Your task to perform on an android device: What is the recent news? Image 0: 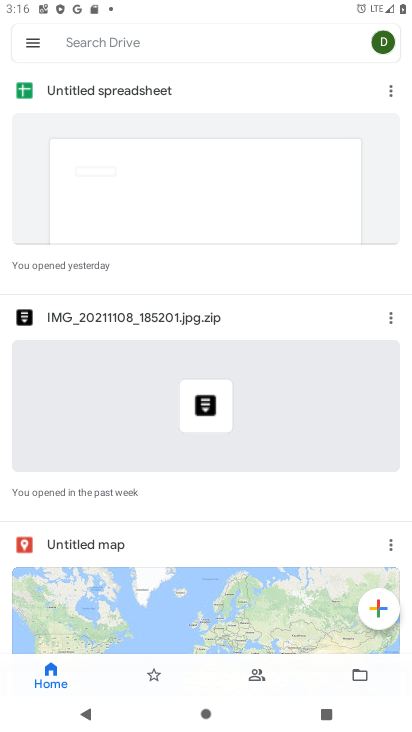
Step 0: press home button
Your task to perform on an android device: What is the recent news? Image 1: 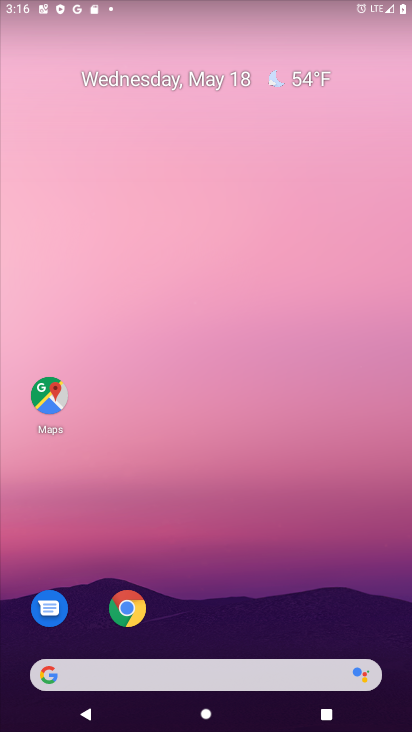
Step 1: click (102, 670)
Your task to perform on an android device: What is the recent news? Image 2: 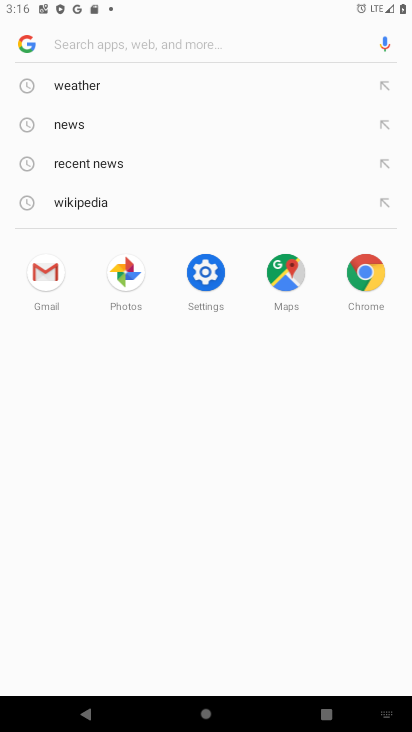
Step 2: click (101, 170)
Your task to perform on an android device: What is the recent news? Image 3: 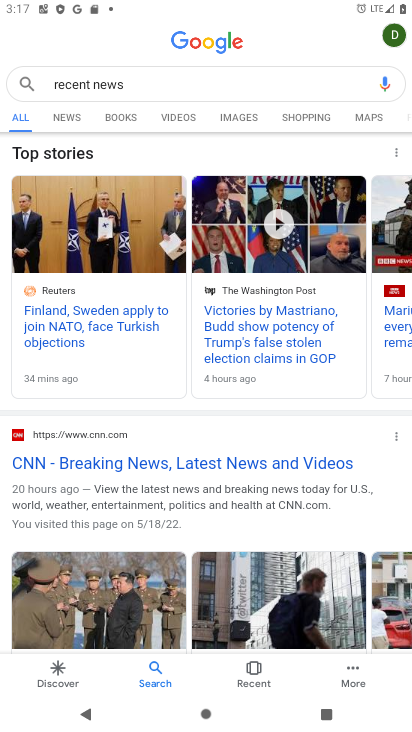
Step 3: click (70, 118)
Your task to perform on an android device: What is the recent news? Image 4: 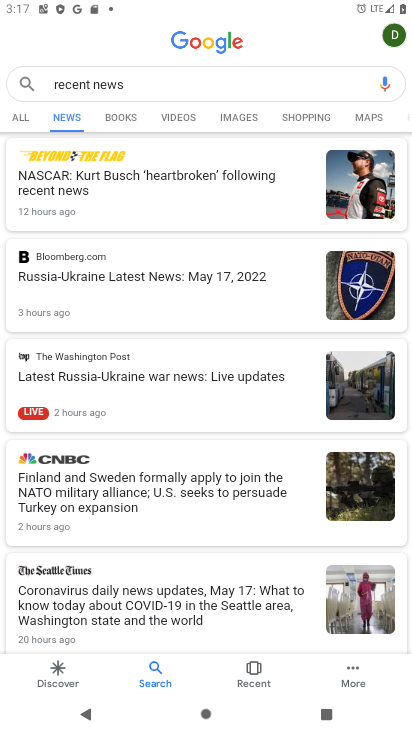
Step 4: drag from (172, 560) to (173, 305)
Your task to perform on an android device: What is the recent news? Image 5: 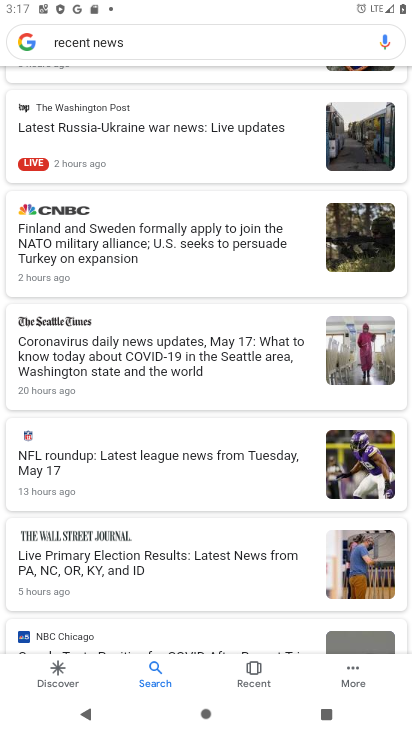
Step 5: drag from (174, 531) to (190, 285)
Your task to perform on an android device: What is the recent news? Image 6: 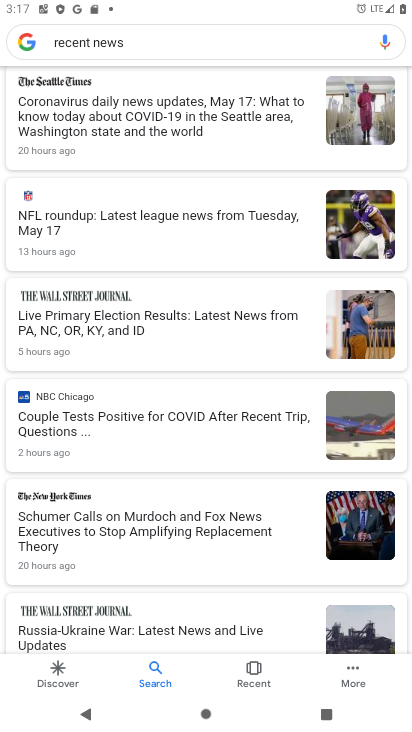
Step 6: drag from (154, 516) to (176, 318)
Your task to perform on an android device: What is the recent news? Image 7: 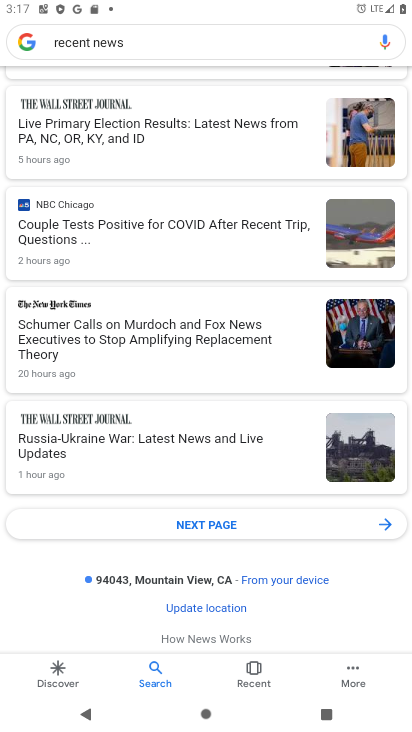
Step 7: click (120, 473)
Your task to perform on an android device: What is the recent news? Image 8: 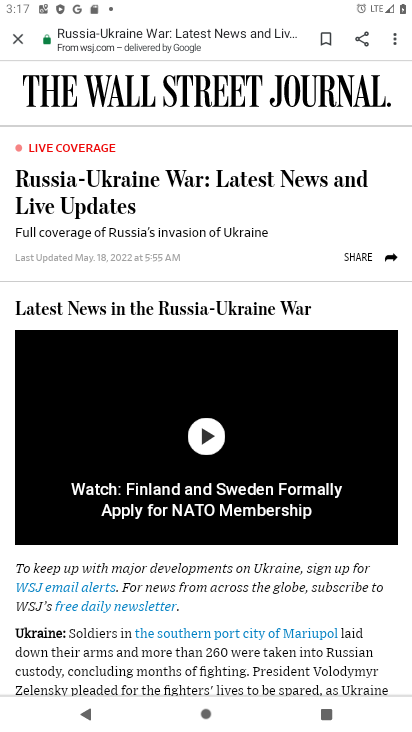
Step 8: task complete